Your task to perform on an android device: Search for seafood restaurants on Google Maps Image 0: 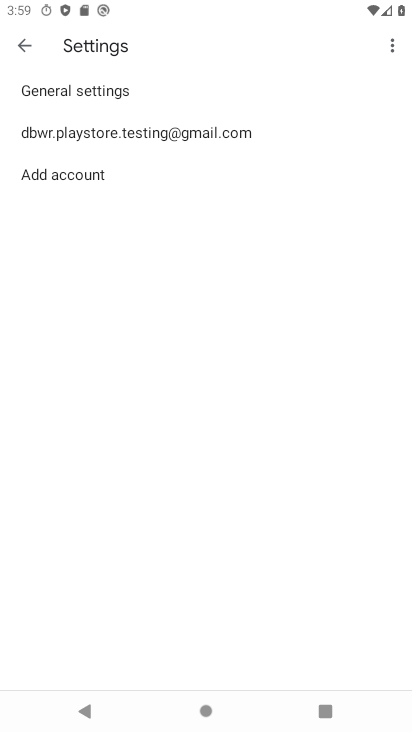
Step 0: press home button
Your task to perform on an android device: Search for seafood restaurants on Google Maps Image 1: 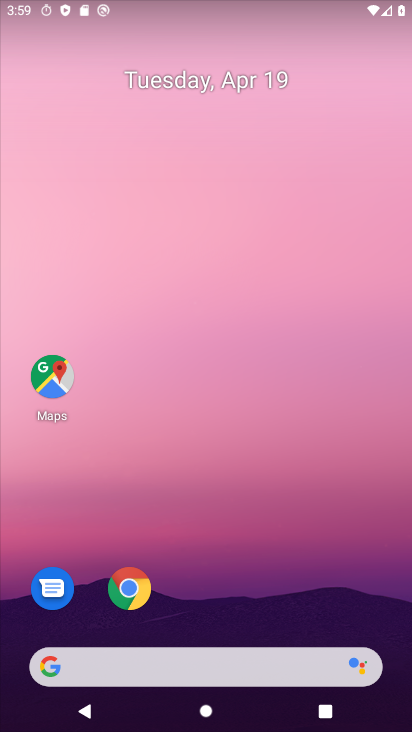
Step 1: click (49, 387)
Your task to perform on an android device: Search for seafood restaurants on Google Maps Image 2: 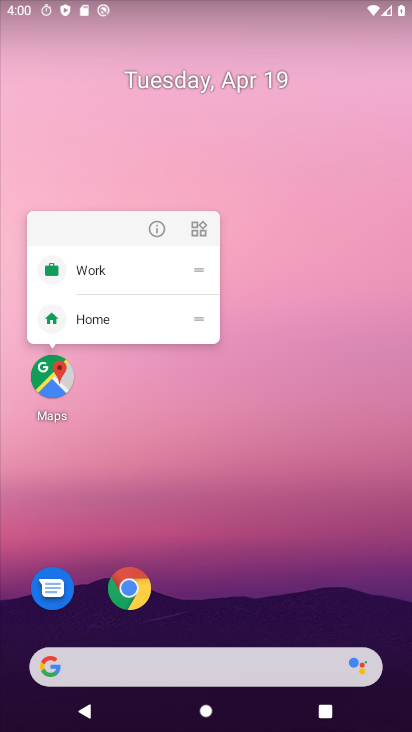
Step 2: click (58, 372)
Your task to perform on an android device: Search for seafood restaurants on Google Maps Image 3: 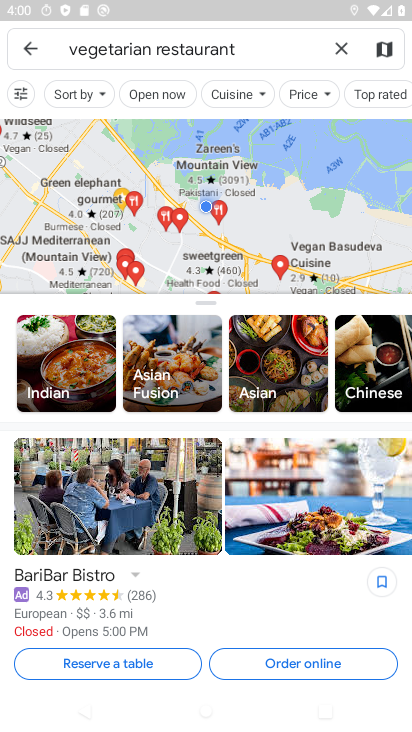
Step 3: click (339, 43)
Your task to perform on an android device: Search for seafood restaurants on Google Maps Image 4: 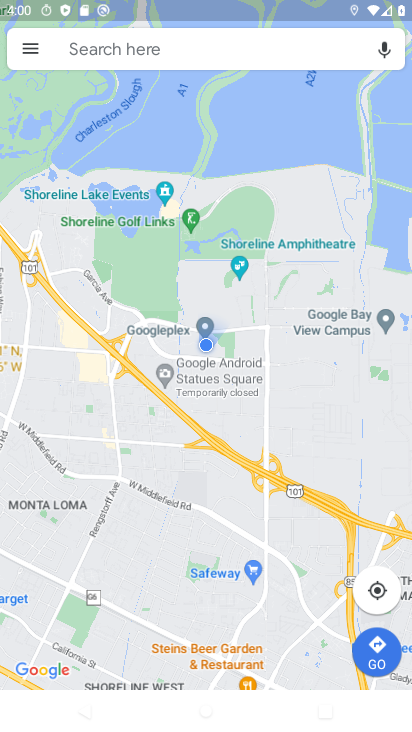
Step 4: click (219, 57)
Your task to perform on an android device: Search for seafood restaurants on Google Maps Image 5: 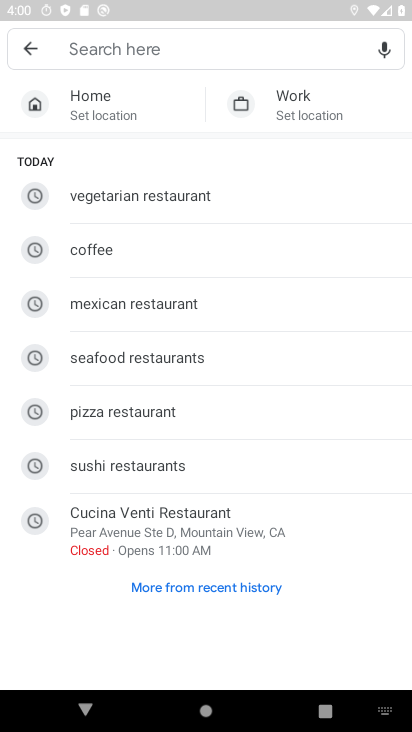
Step 5: click (137, 354)
Your task to perform on an android device: Search for seafood restaurants on Google Maps Image 6: 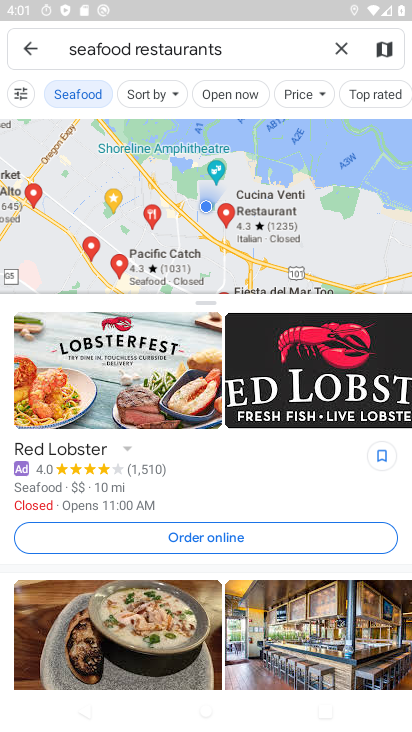
Step 6: task complete